Your task to perform on an android device: check battery use Image 0: 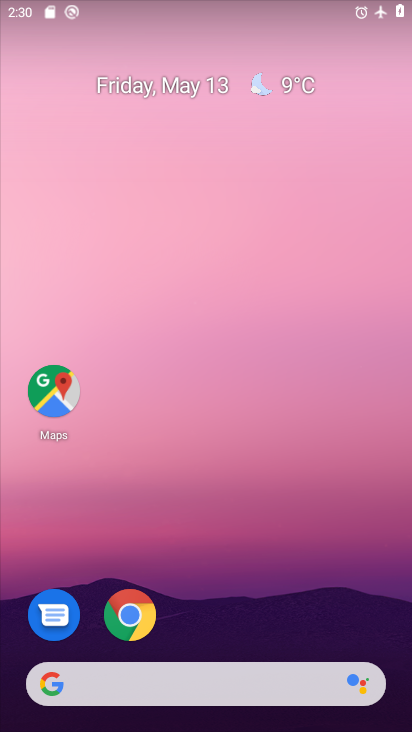
Step 0: drag from (235, 563) to (285, 33)
Your task to perform on an android device: check battery use Image 1: 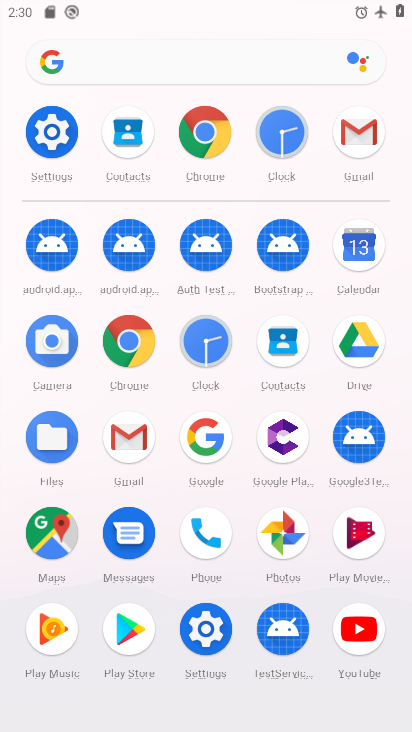
Step 1: click (49, 140)
Your task to perform on an android device: check battery use Image 2: 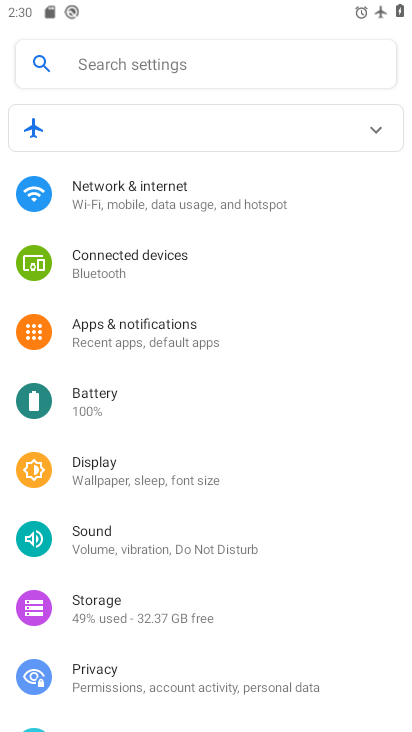
Step 2: click (81, 400)
Your task to perform on an android device: check battery use Image 3: 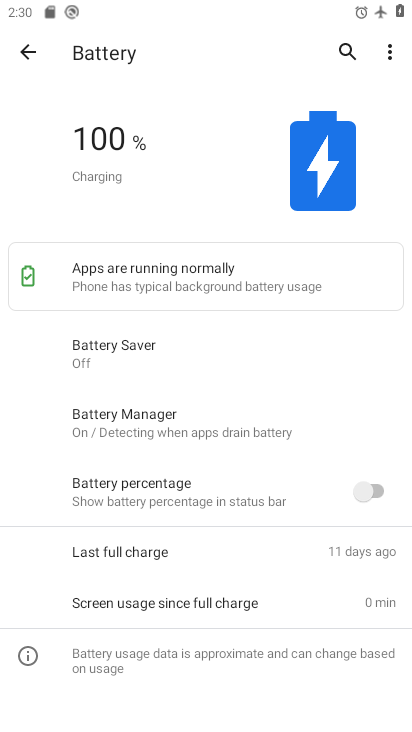
Step 3: task complete